Your task to perform on an android device: set the stopwatch Image 0: 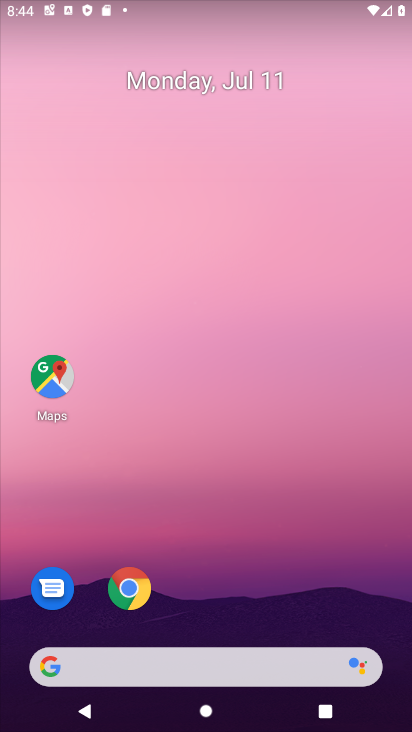
Step 0: drag from (405, 642) to (270, 0)
Your task to perform on an android device: set the stopwatch Image 1: 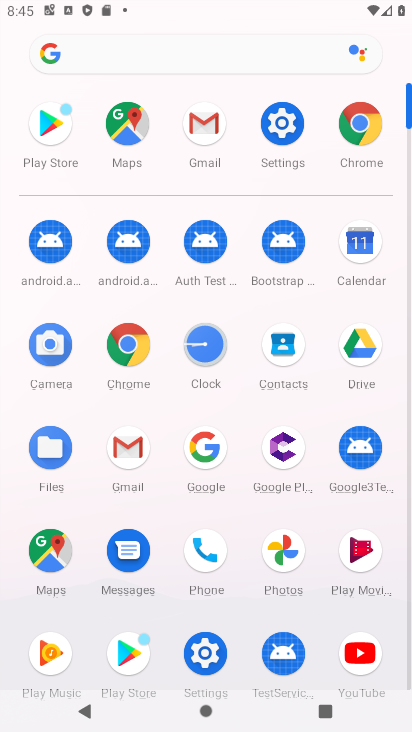
Step 1: click (189, 338)
Your task to perform on an android device: set the stopwatch Image 2: 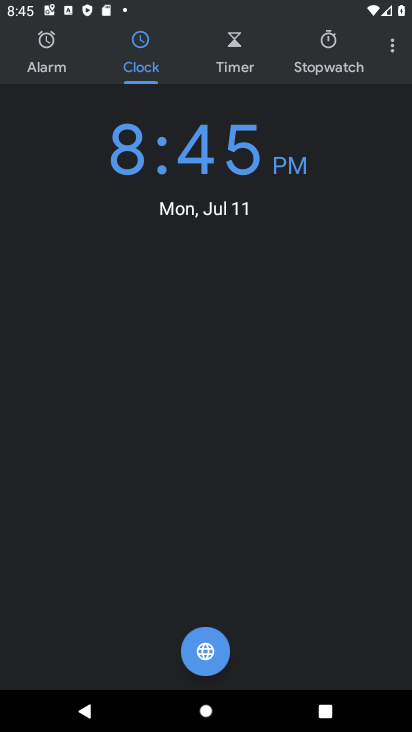
Step 2: click (332, 45)
Your task to perform on an android device: set the stopwatch Image 3: 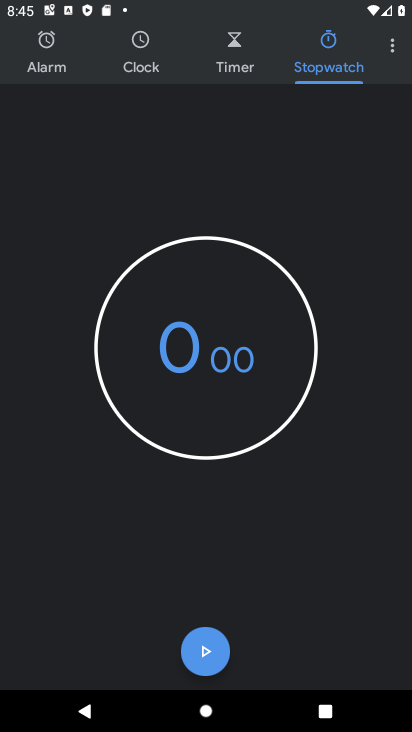
Step 3: task complete